Your task to perform on an android device: open chrome and create a bookmark for the current page Image 0: 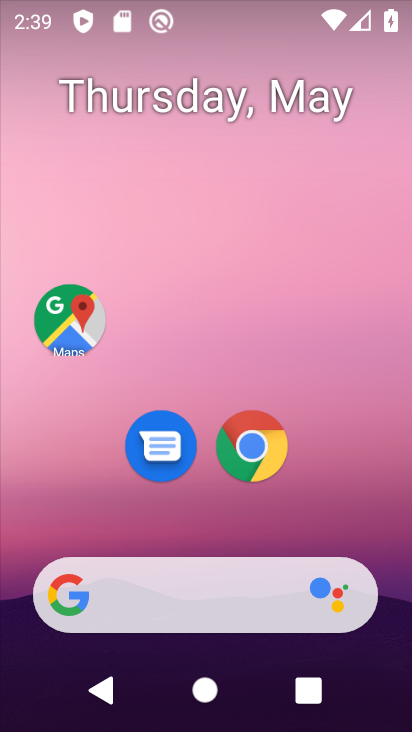
Step 0: click (257, 488)
Your task to perform on an android device: open chrome and create a bookmark for the current page Image 1: 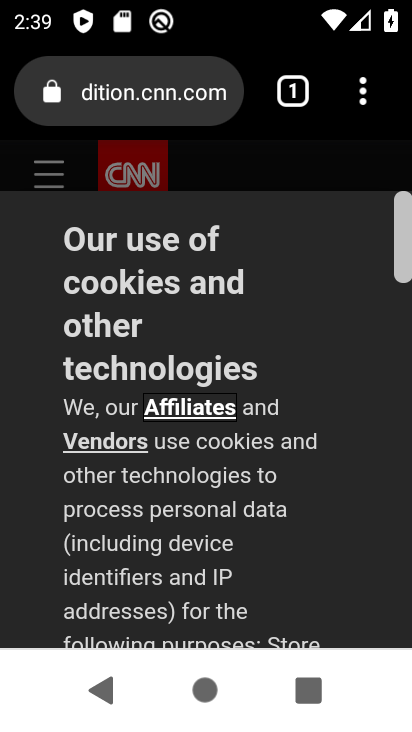
Step 1: click (363, 99)
Your task to perform on an android device: open chrome and create a bookmark for the current page Image 2: 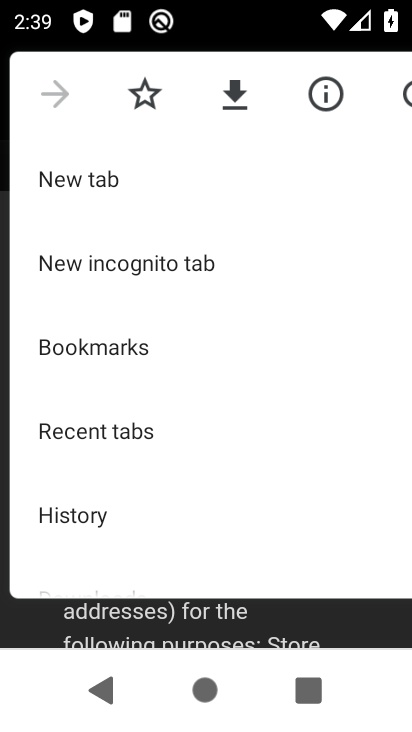
Step 2: click (143, 100)
Your task to perform on an android device: open chrome and create a bookmark for the current page Image 3: 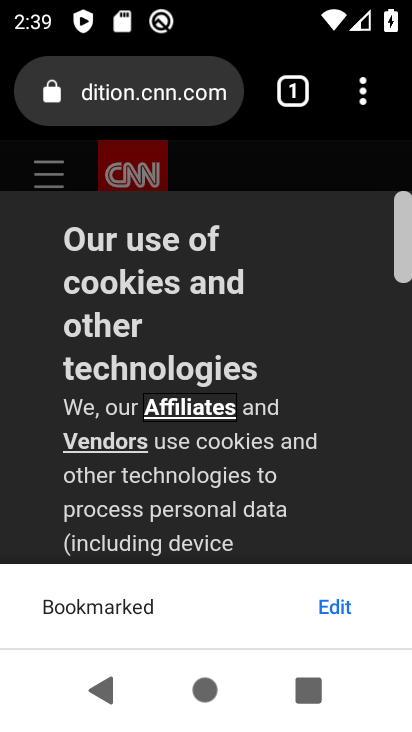
Step 3: task complete